Your task to perform on an android device: turn notification dots on Image 0: 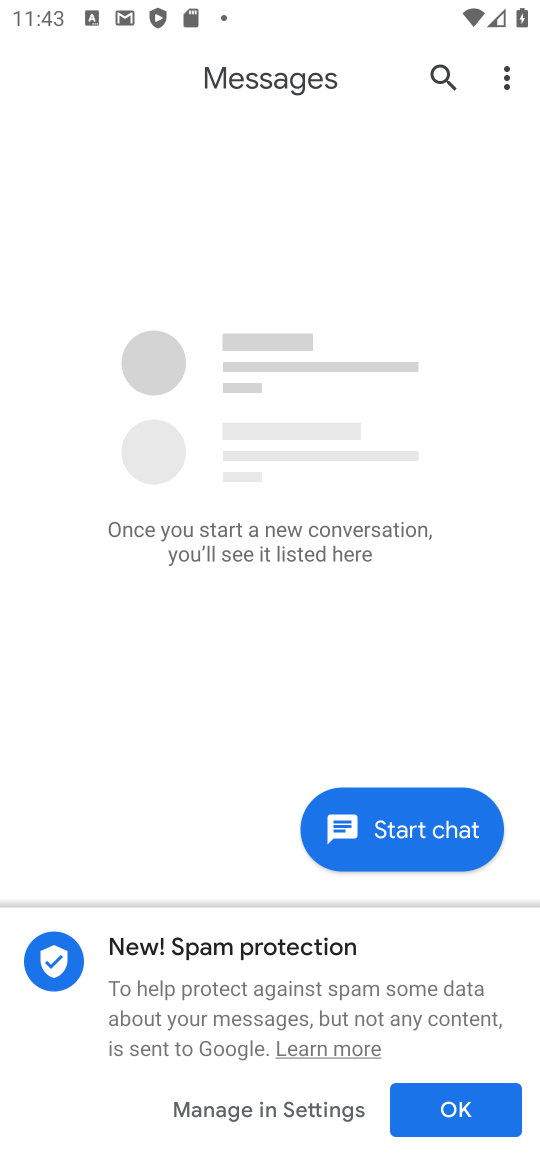
Step 0: press home button
Your task to perform on an android device: turn notification dots on Image 1: 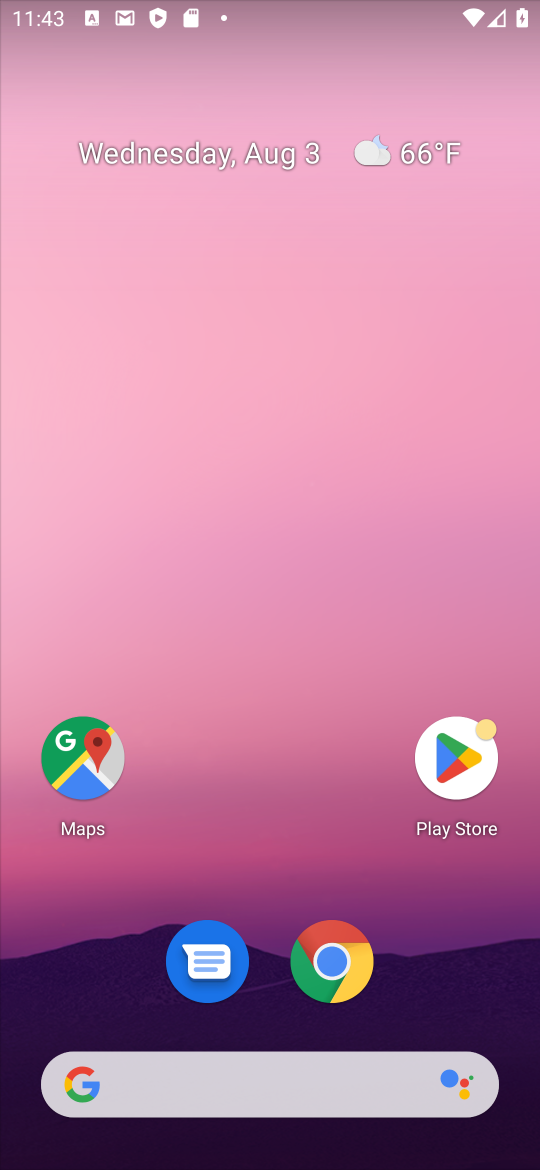
Step 1: drag from (290, 837) to (304, 30)
Your task to perform on an android device: turn notification dots on Image 2: 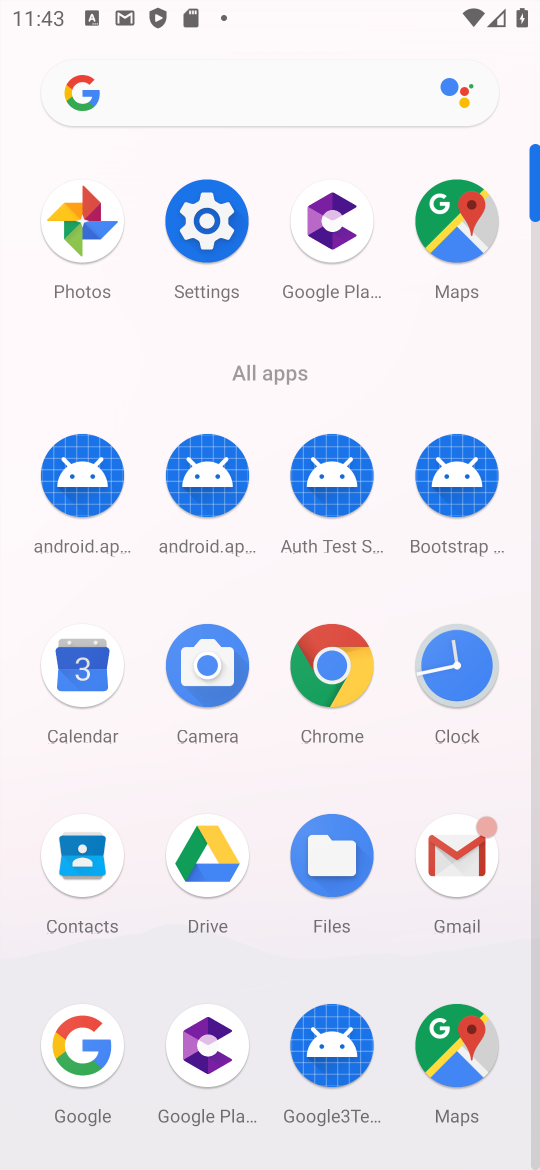
Step 2: click (207, 232)
Your task to perform on an android device: turn notification dots on Image 3: 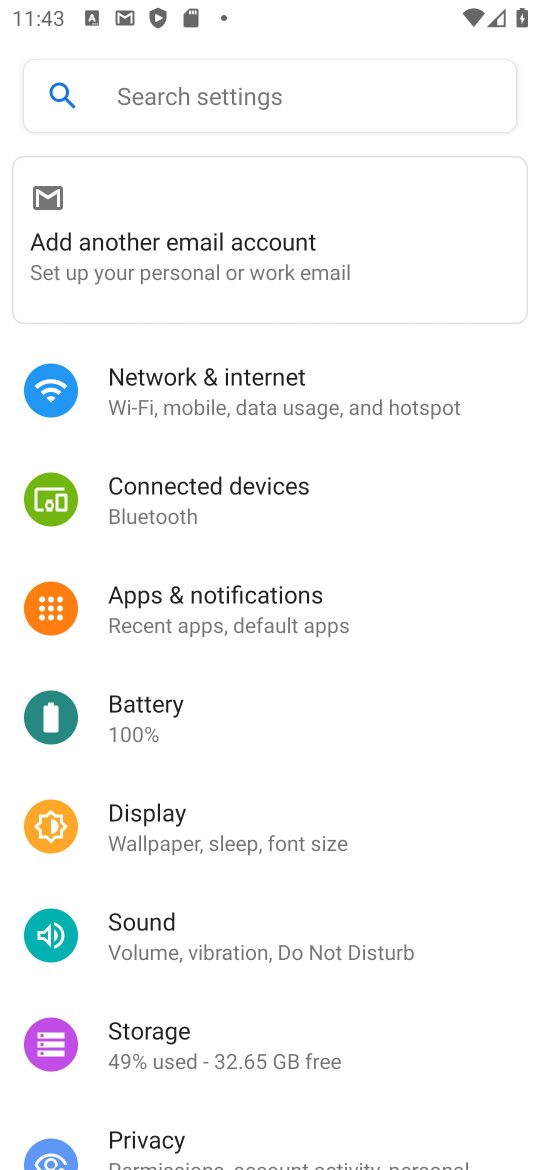
Step 3: click (228, 589)
Your task to perform on an android device: turn notification dots on Image 4: 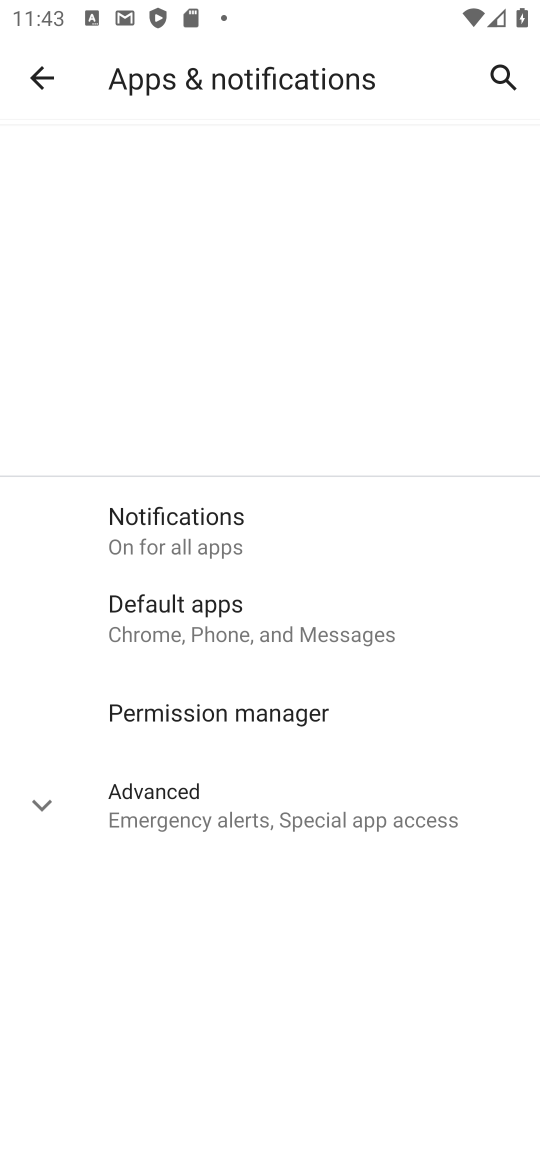
Step 4: click (45, 803)
Your task to perform on an android device: turn notification dots on Image 5: 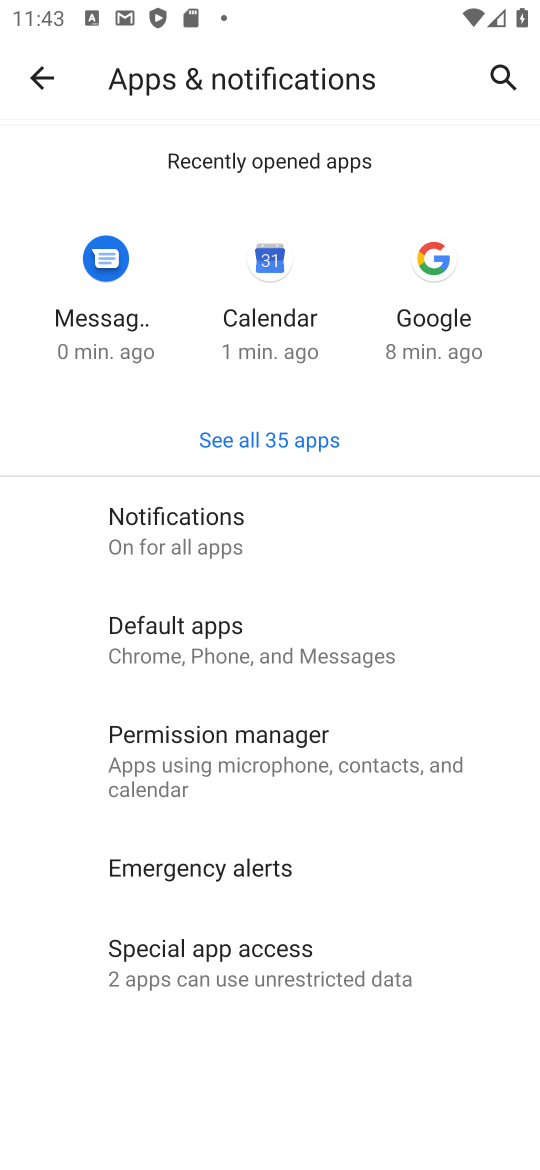
Step 5: click (179, 531)
Your task to perform on an android device: turn notification dots on Image 6: 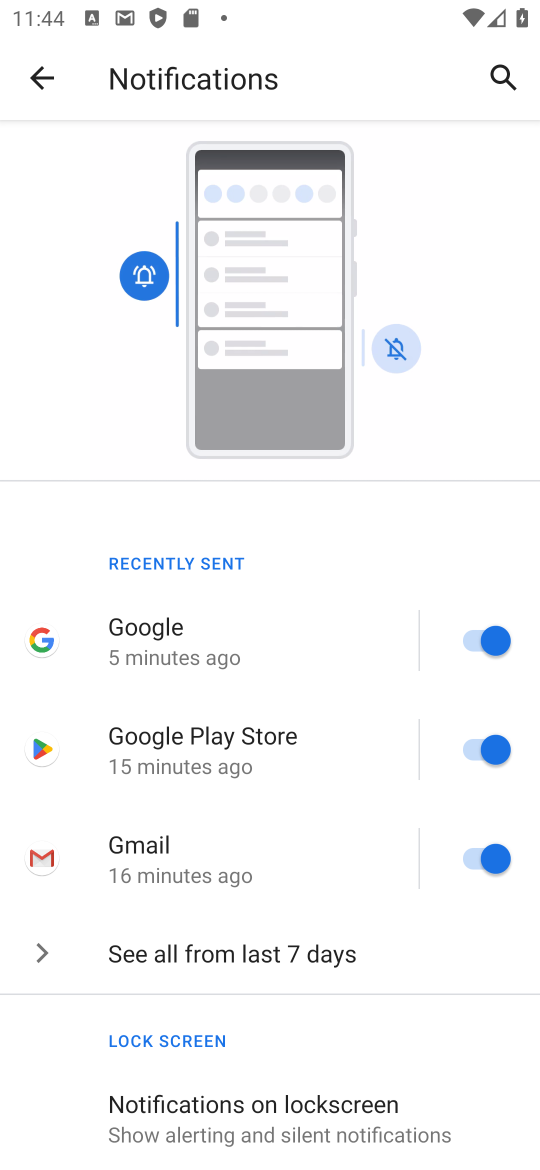
Step 6: drag from (265, 952) to (298, 662)
Your task to perform on an android device: turn notification dots on Image 7: 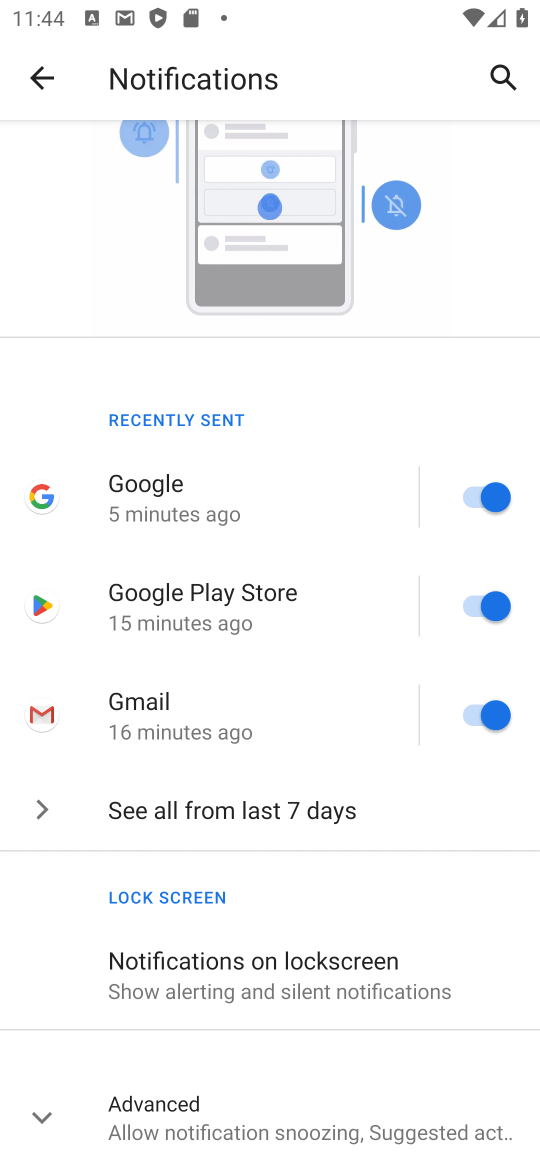
Step 7: click (49, 1107)
Your task to perform on an android device: turn notification dots on Image 8: 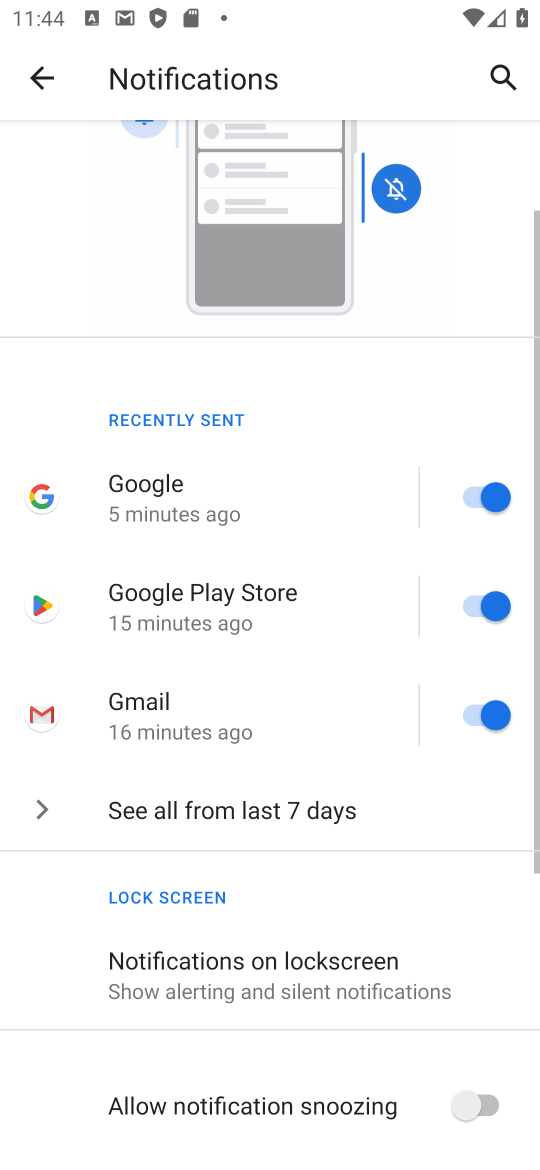
Step 8: task complete